Your task to perform on an android device: turn on data saver in the chrome app Image 0: 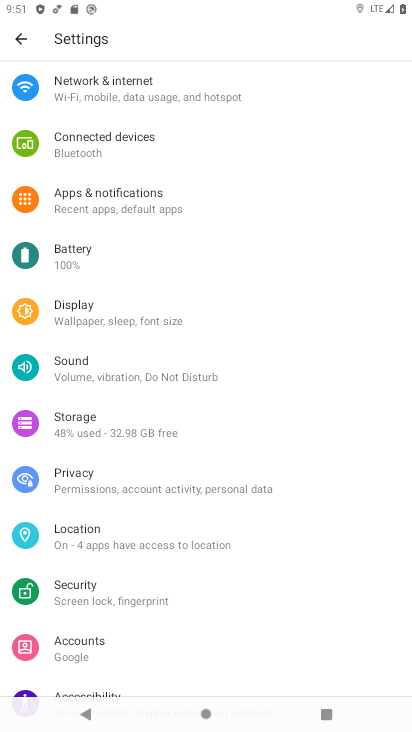
Step 0: click (378, 423)
Your task to perform on an android device: turn on data saver in the chrome app Image 1: 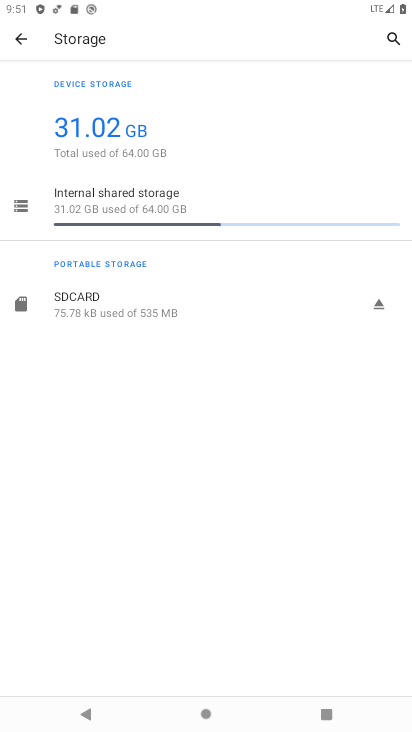
Step 1: press back button
Your task to perform on an android device: turn on data saver in the chrome app Image 2: 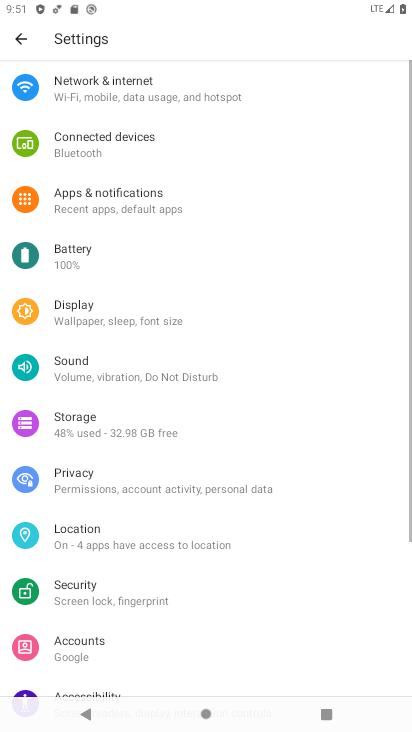
Step 2: press home button
Your task to perform on an android device: turn on data saver in the chrome app Image 3: 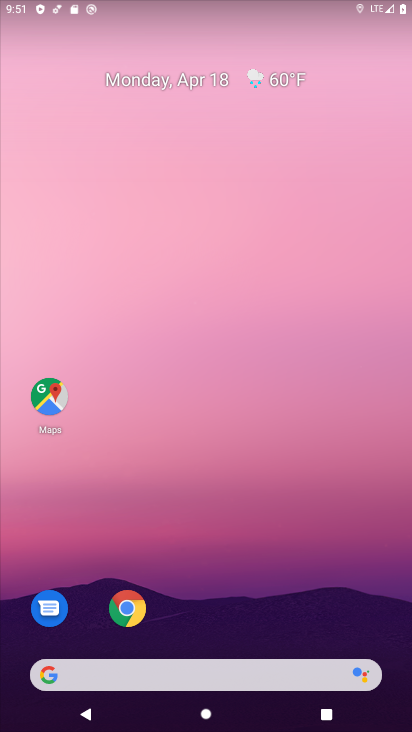
Step 3: click (138, 602)
Your task to perform on an android device: turn on data saver in the chrome app Image 4: 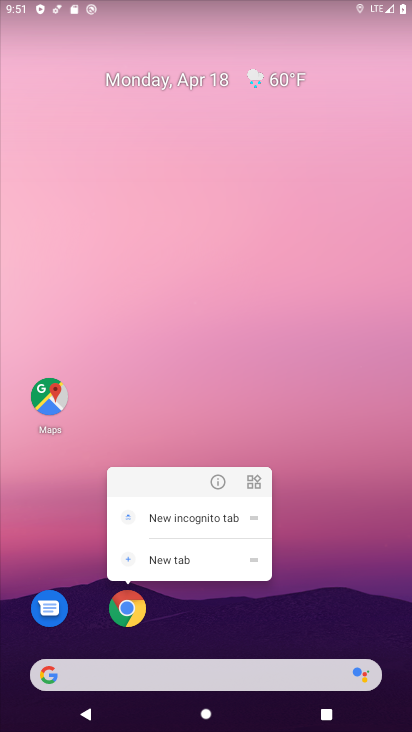
Step 4: click (214, 477)
Your task to perform on an android device: turn on data saver in the chrome app Image 5: 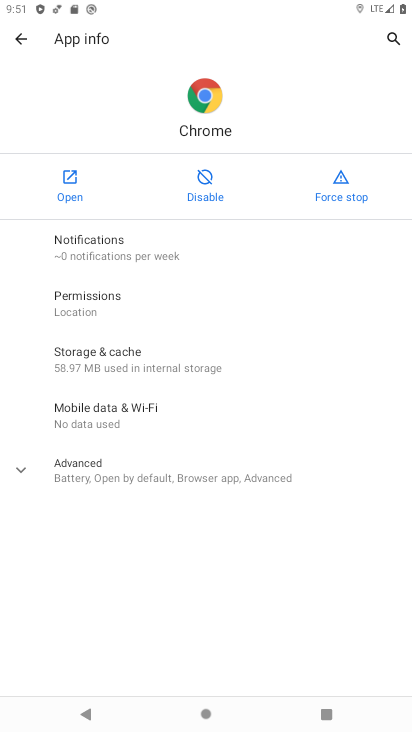
Step 5: click (73, 175)
Your task to perform on an android device: turn on data saver in the chrome app Image 6: 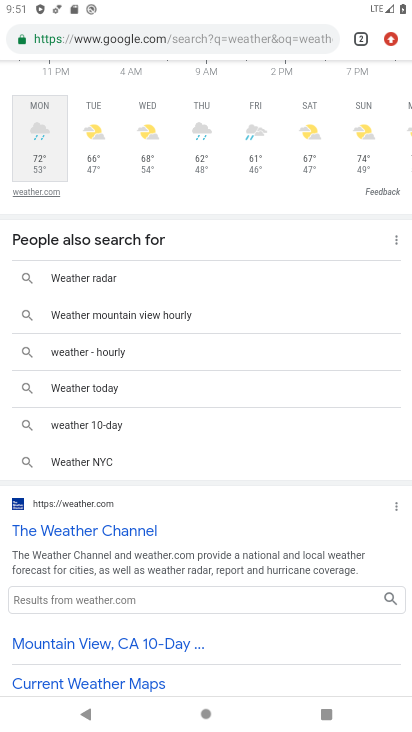
Step 6: drag from (180, 218) to (227, 704)
Your task to perform on an android device: turn on data saver in the chrome app Image 7: 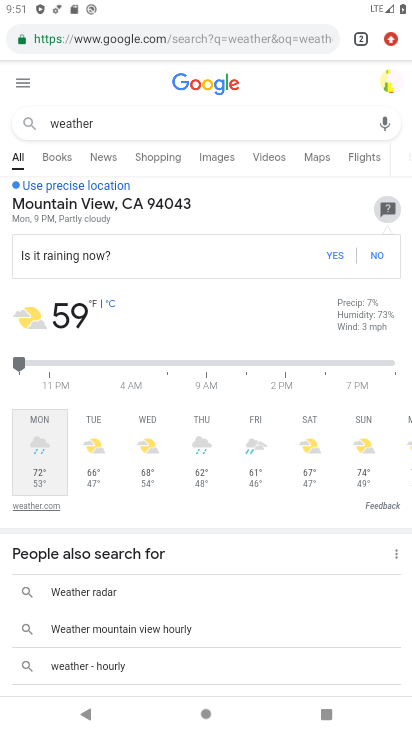
Step 7: drag from (394, 39) to (278, 484)
Your task to perform on an android device: turn on data saver in the chrome app Image 8: 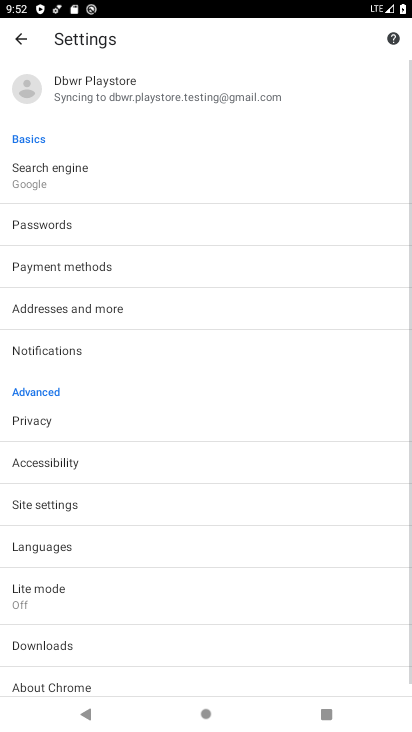
Step 8: drag from (116, 634) to (231, 148)
Your task to perform on an android device: turn on data saver in the chrome app Image 9: 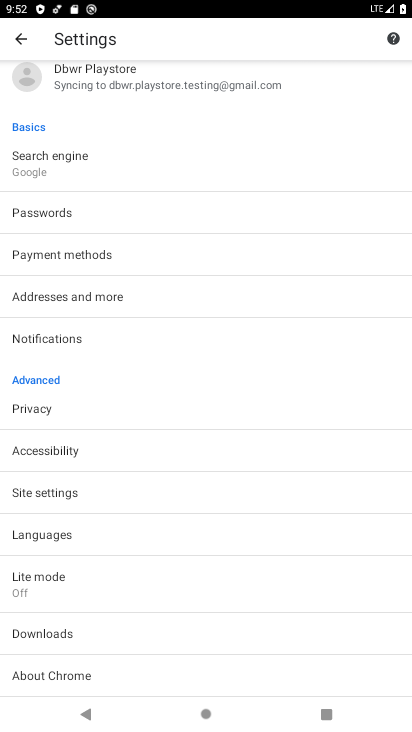
Step 9: click (78, 571)
Your task to perform on an android device: turn on data saver in the chrome app Image 10: 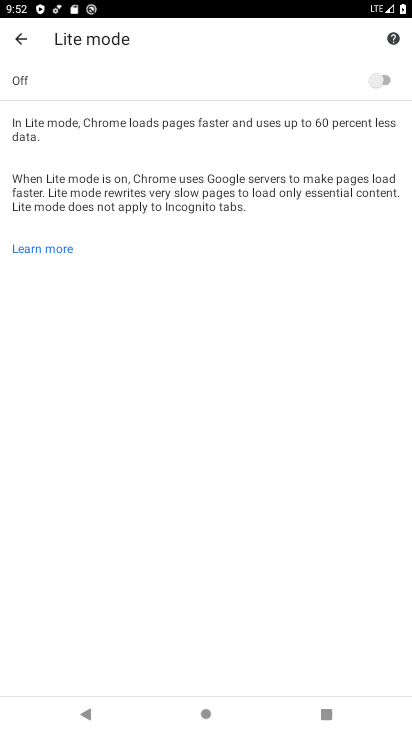
Step 10: click (383, 78)
Your task to perform on an android device: turn on data saver in the chrome app Image 11: 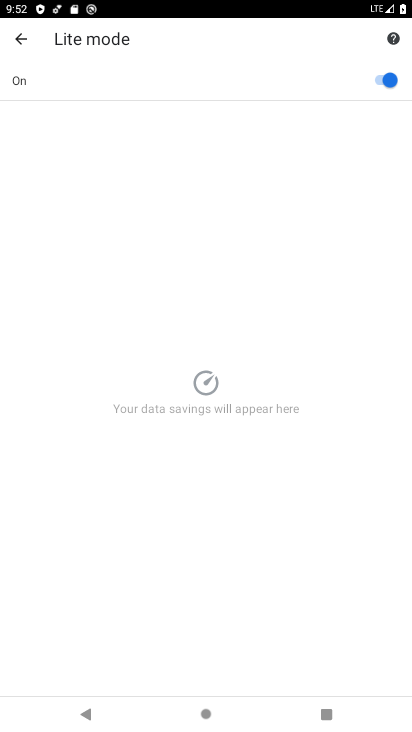
Step 11: task complete